Your task to perform on an android device: turn off airplane mode Image 0: 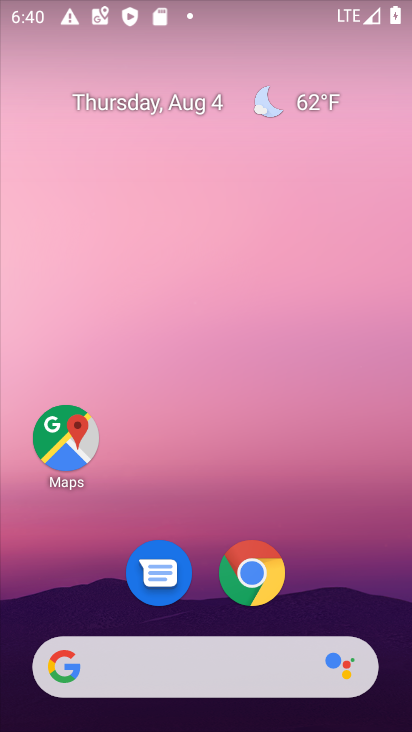
Step 0: press home button
Your task to perform on an android device: turn off airplane mode Image 1: 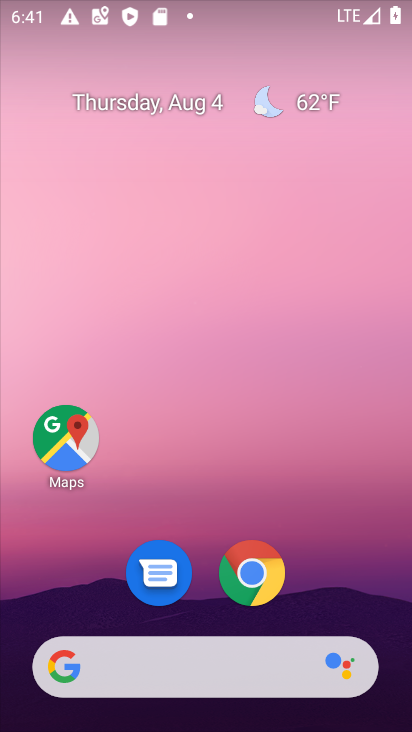
Step 1: task complete